Your task to perform on an android device: Go to accessibility settings Image 0: 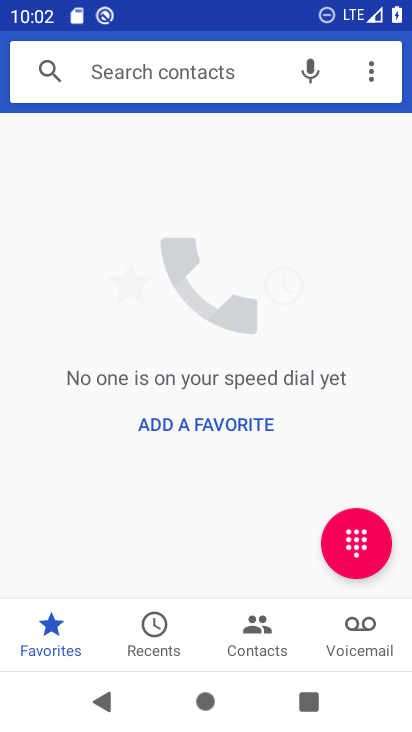
Step 0: press home button
Your task to perform on an android device: Go to accessibility settings Image 1: 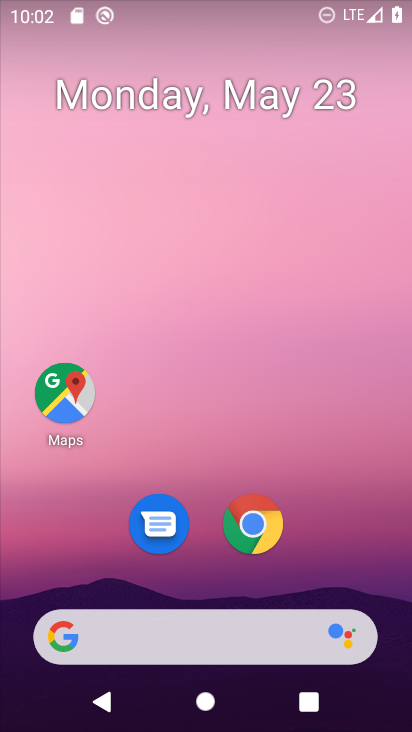
Step 1: drag from (220, 480) to (228, 401)
Your task to perform on an android device: Go to accessibility settings Image 2: 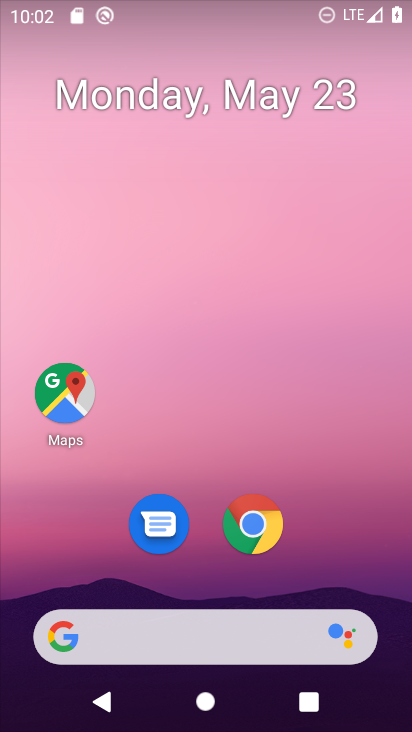
Step 2: drag from (197, 507) to (233, 84)
Your task to perform on an android device: Go to accessibility settings Image 3: 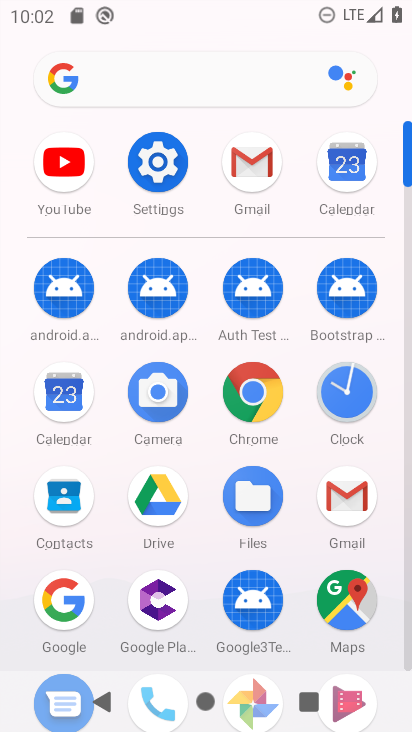
Step 3: click (173, 157)
Your task to perform on an android device: Go to accessibility settings Image 4: 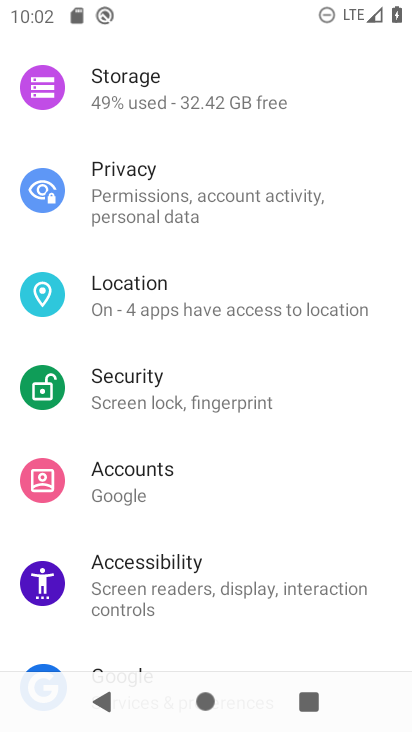
Step 4: click (177, 569)
Your task to perform on an android device: Go to accessibility settings Image 5: 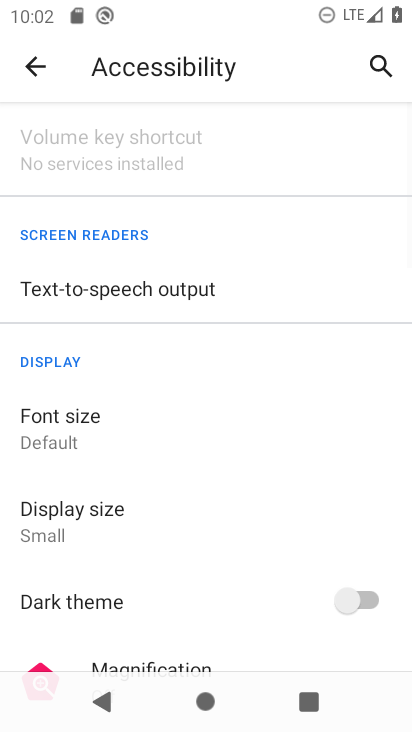
Step 5: task complete